Your task to perform on an android device: open chrome privacy settings Image 0: 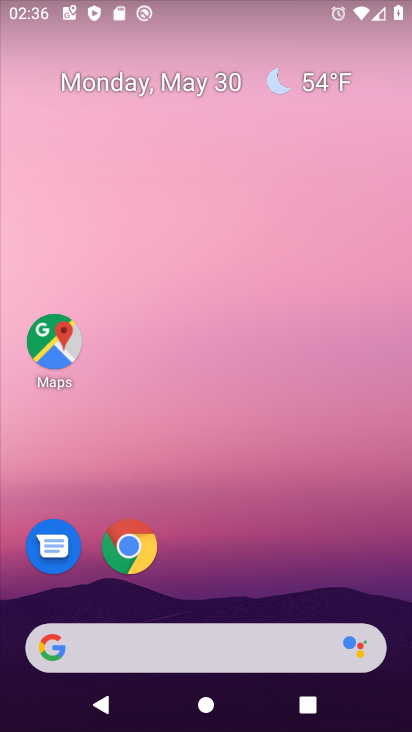
Step 0: click (222, 83)
Your task to perform on an android device: open chrome privacy settings Image 1: 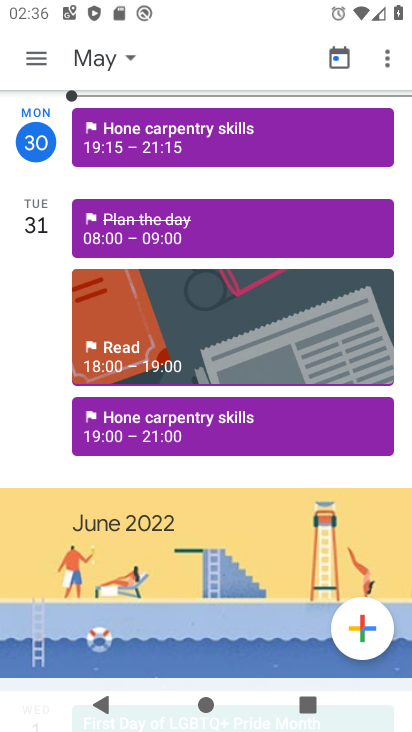
Step 1: press home button
Your task to perform on an android device: open chrome privacy settings Image 2: 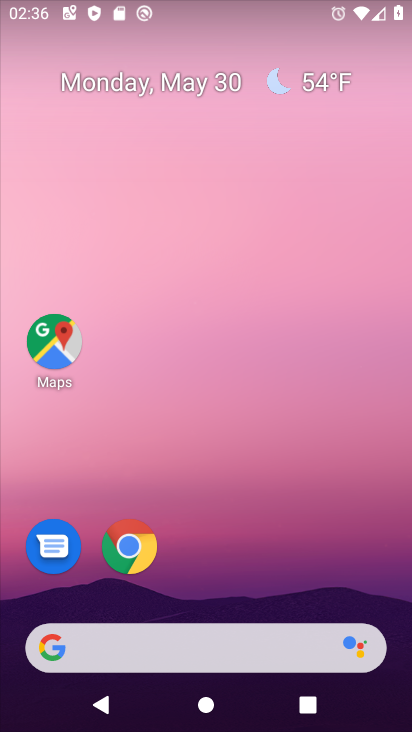
Step 2: drag from (239, 274) to (256, 13)
Your task to perform on an android device: open chrome privacy settings Image 3: 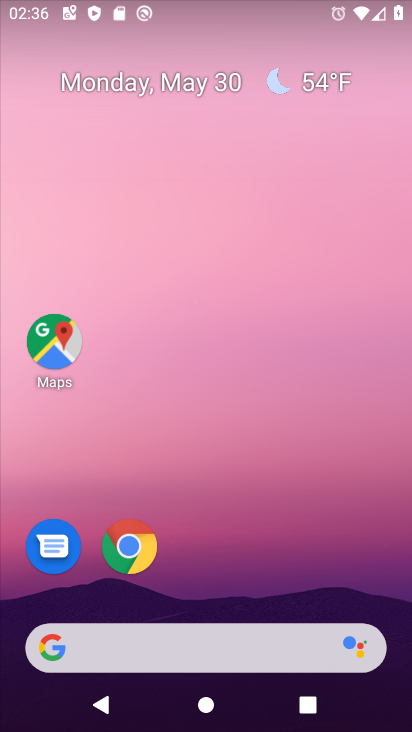
Step 3: drag from (227, 353) to (251, 65)
Your task to perform on an android device: open chrome privacy settings Image 4: 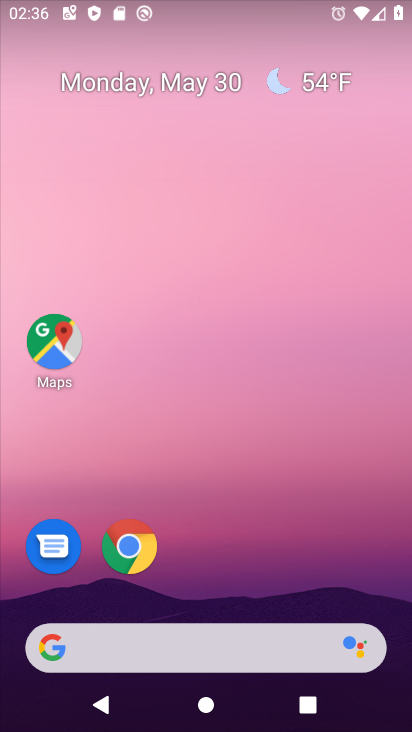
Step 4: drag from (219, 599) to (277, 116)
Your task to perform on an android device: open chrome privacy settings Image 5: 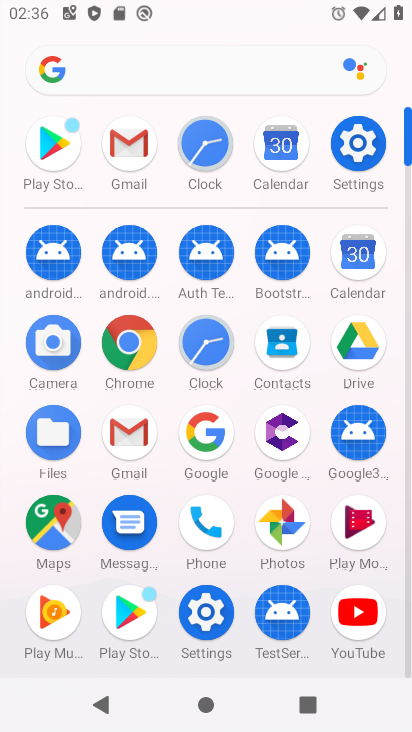
Step 5: click (198, 602)
Your task to perform on an android device: open chrome privacy settings Image 6: 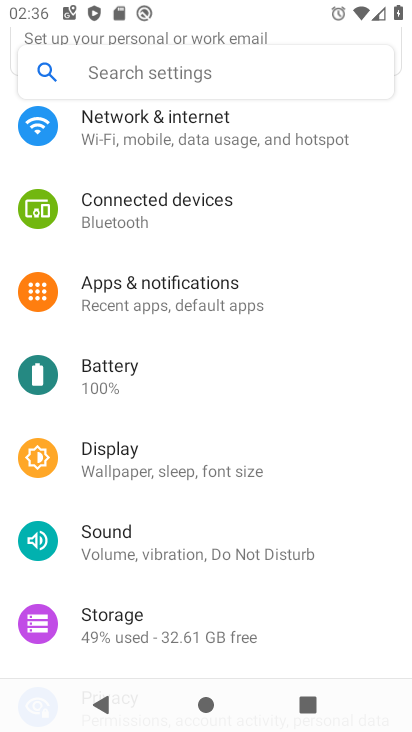
Step 6: drag from (169, 595) to (205, 158)
Your task to perform on an android device: open chrome privacy settings Image 7: 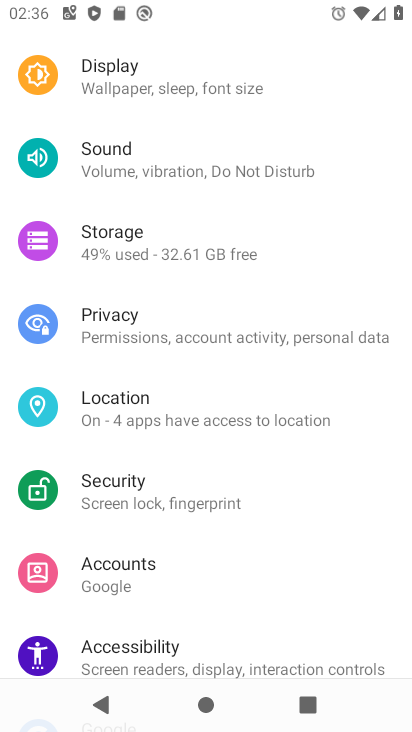
Step 7: click (155, 323)
Your task to perform on an android device: open chrome privacy settings Image 8: 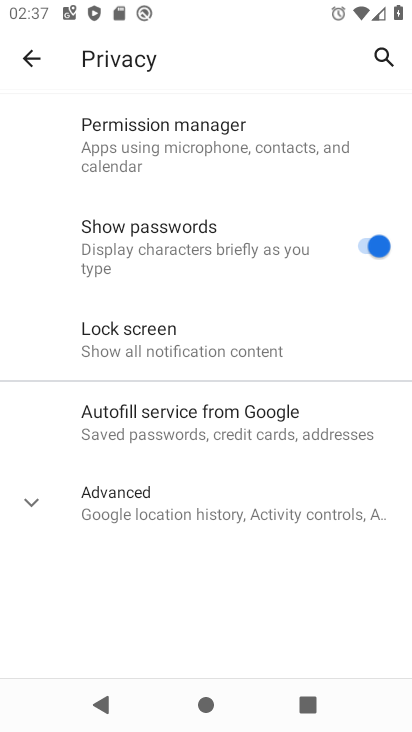
Step 8: click (34, 501)
Your task to perform on an android device: open chrome privacy settings Image 9: 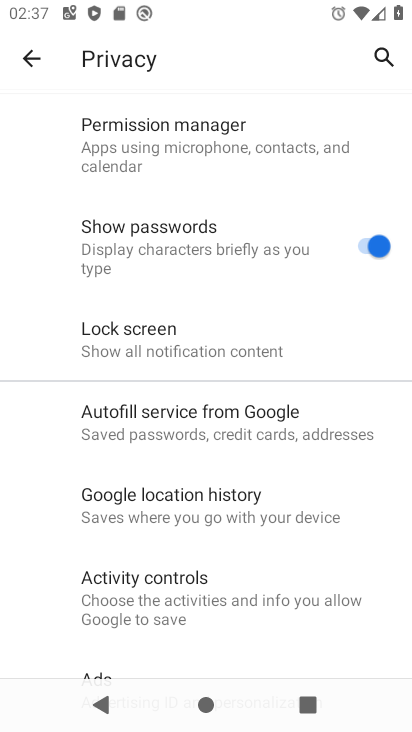
Step 9: task complete